Your task to perform on an android device: turn pop-ups off in chrome Image 0: 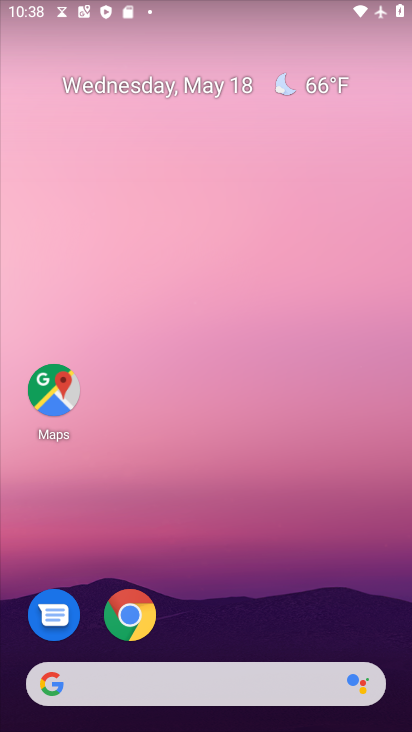
Step 0: drag from (256, 569) to (192, 14)
Your task to perform on an android device: turn pop-ups off in chrome Image 1: 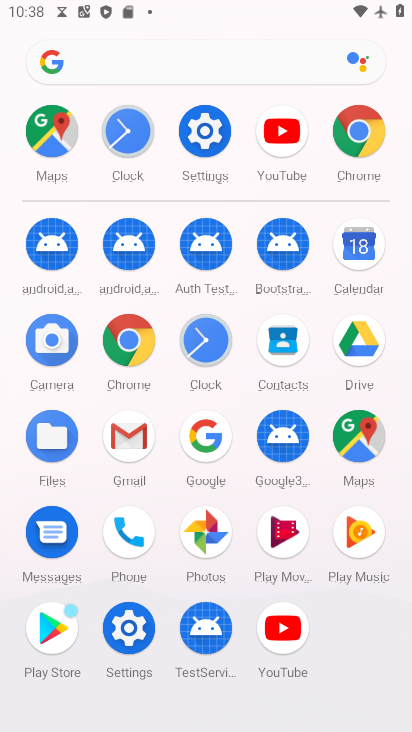
Step 1: drag from (12, 537) to (13, 183)
Your task to perform on an android device: turn pop-ups off in chrome Image 2: 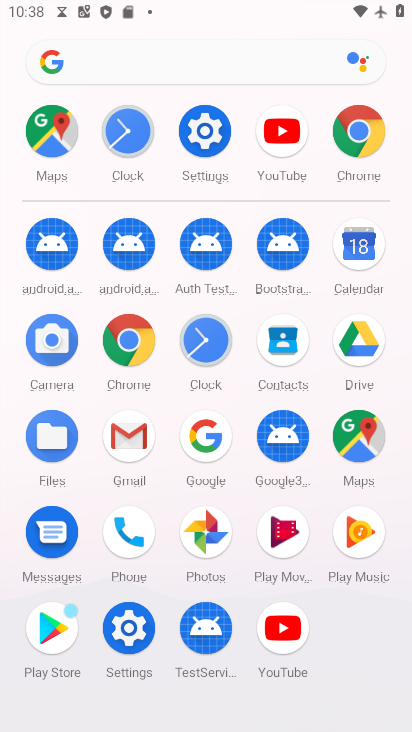
Step 2: click (125, 338)
Your task to perform on an android device: turn pop-ups off in chrome Image 3: 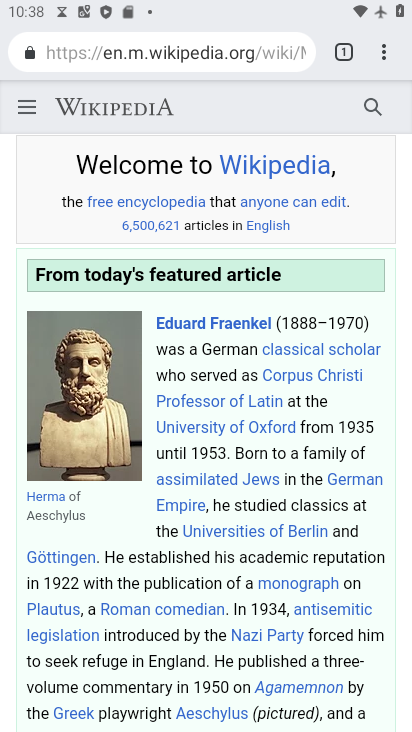
Step 3: drag from (384, 53) to (203, 629)
Your task to perform on an android device: turn pop-ups off in chrome Image 4: 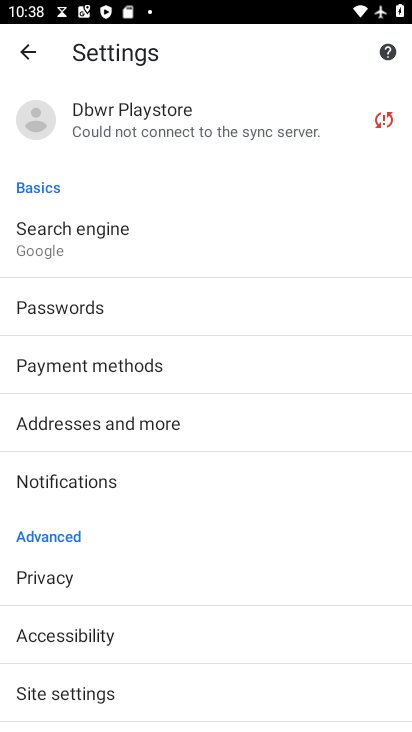
Step 4: drag from (196, 563) to (212, 210)
Your task to perform on an android device: turn pop-ups off in chrome Image 5: 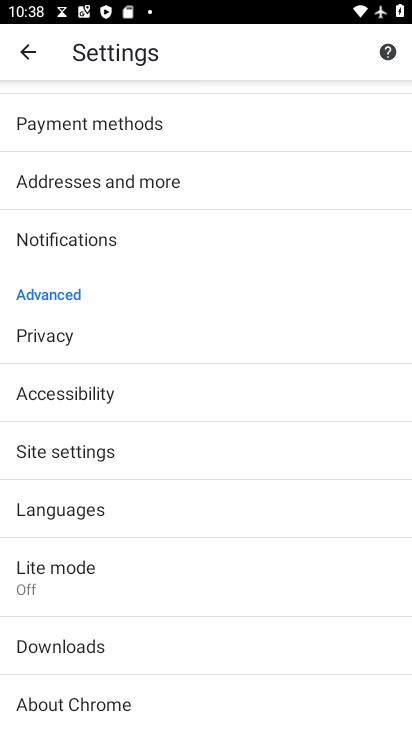
Step 5: click (101, 457)
Your task to perform on an android device: turn pop-ups off in chrome Image 6: 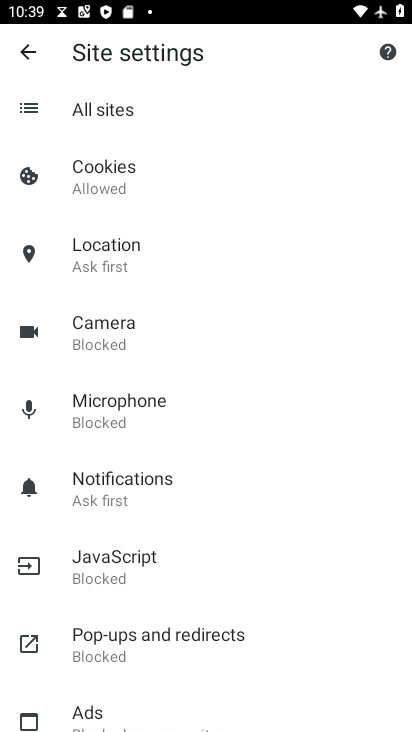
Step 6: drag from (212, 582) to (219, 154)
Your task to perform on an android device: turn pop-ups off in chrome Image 7: 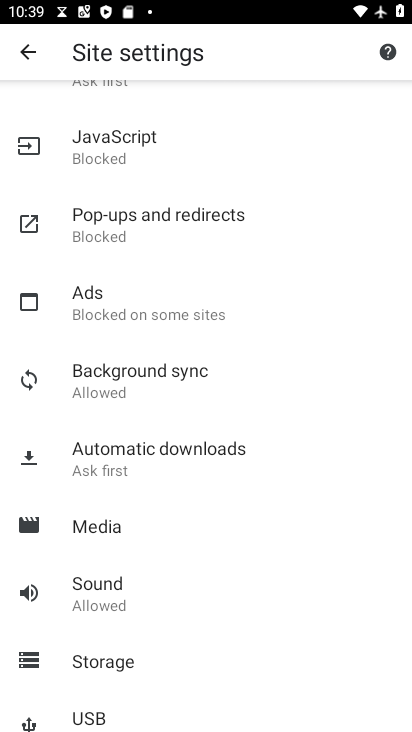
Step 7: click (161, 218)
Your task to perform on an android device: turn pop-ups off in chrome Image 8: 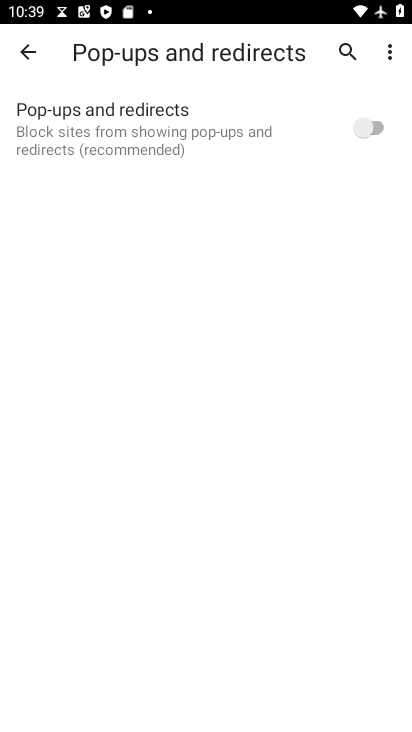
Step 8: task complete